Your task to perform on an android device: check android version Image 0: 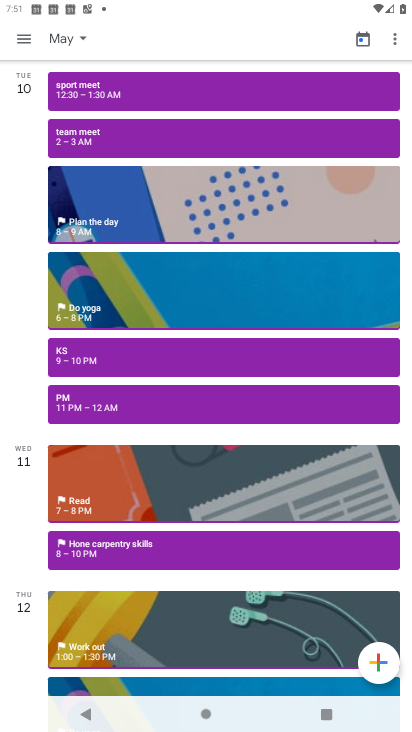
Step 0: press home button
Your task to perform on an android device: check android version Image 1: 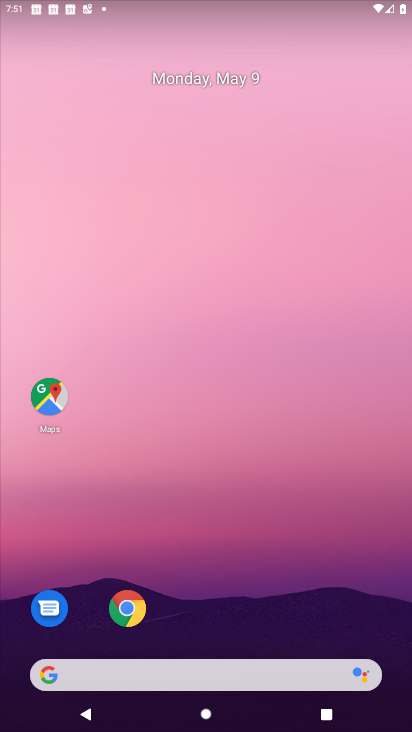
Step 1: drag from (274, 719) to (381, 5)
Your task to perform on an android device: check android version Image 2: 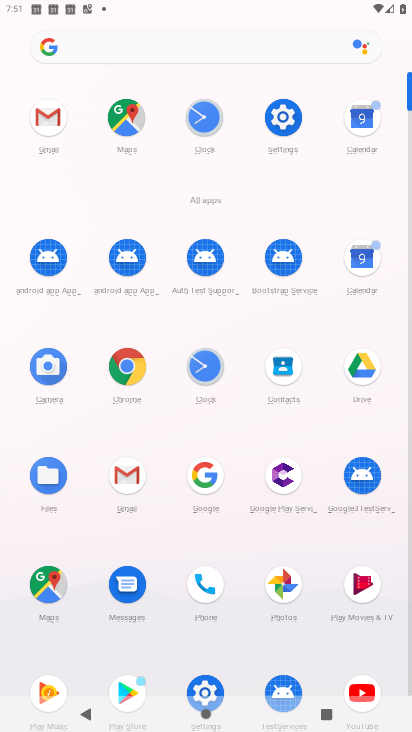
Step 2: click (290, 111)
Your task to perform on an android device: check android version Image 3: 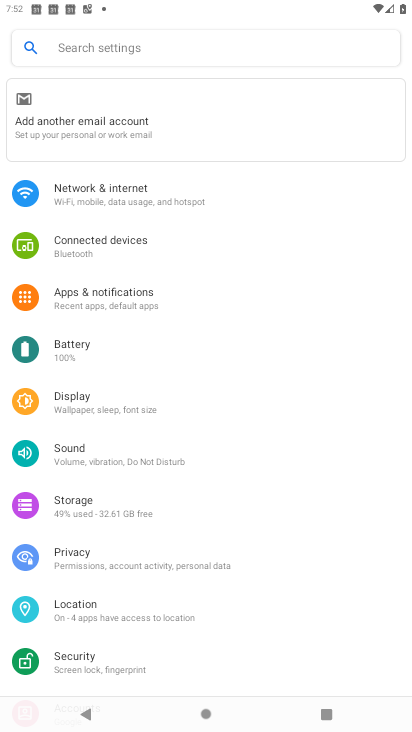
Step 3: drag from (203, 609) to (16, 519)
Your task to perform on an android device: check android version Image 4: 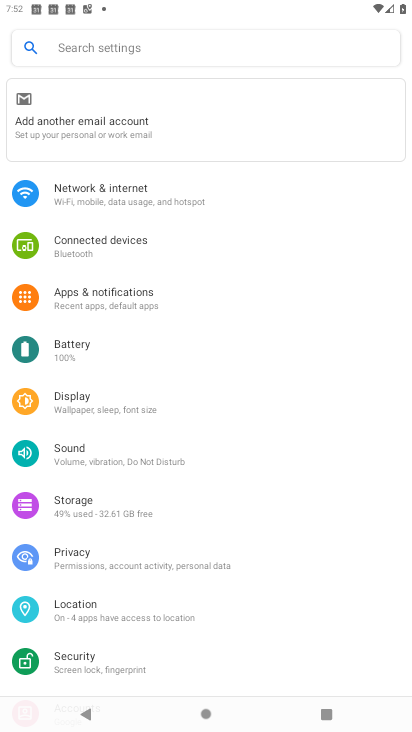
Step 4: drag from (176, 628) to (173, 16)
Your task to perform on an android device: check android version Image 5: 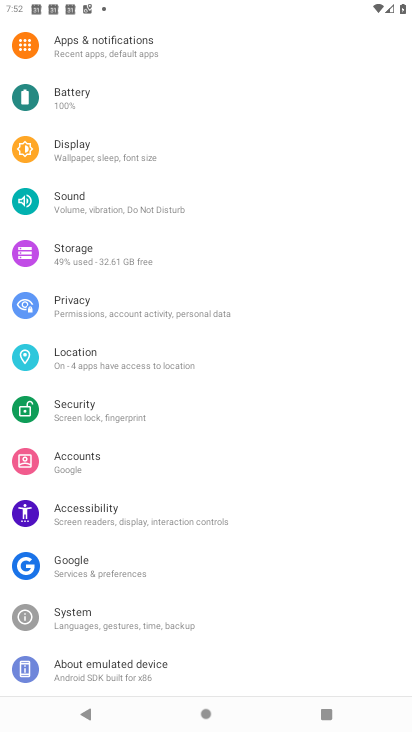
Step 5: click (144, 675)
Your task to perform on an android device: check android version Image 6: 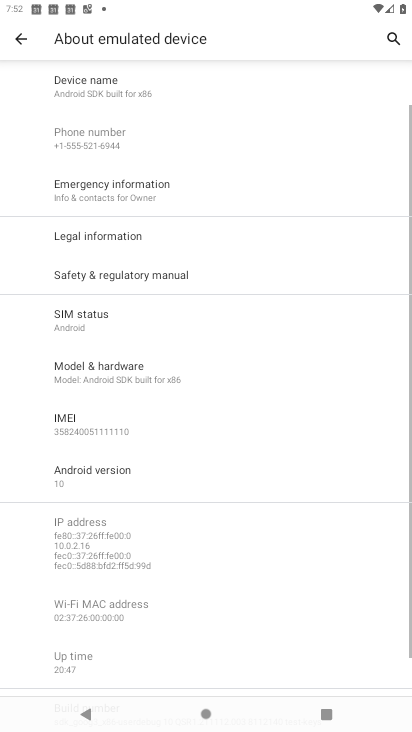
Step 6: task complete